Your task to perform on an android device: Go to wifi settings Image 0: 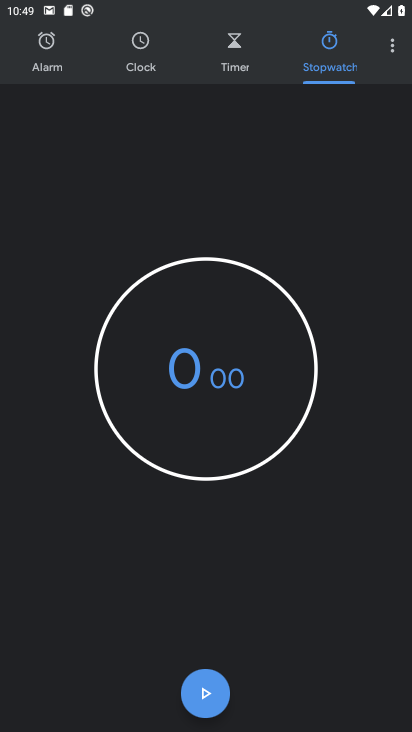
Step 0: drag from (177, 654) to (191, 306)
Your task to perform on an android device: Go to wifi settings Image 1: 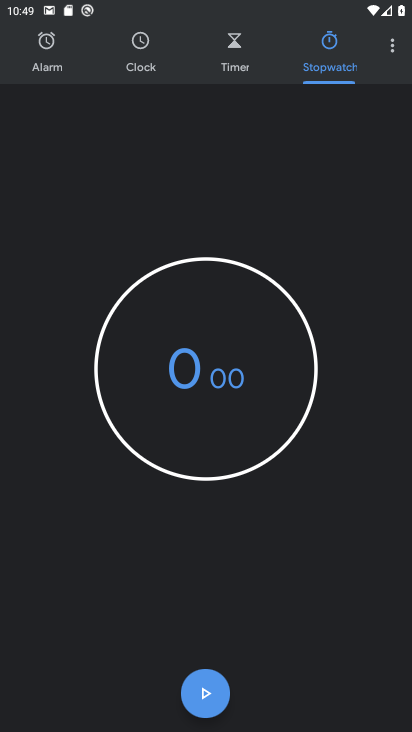
Step 1: press home button
Your task to perform on an android device: Go to wifi settings Image 2: 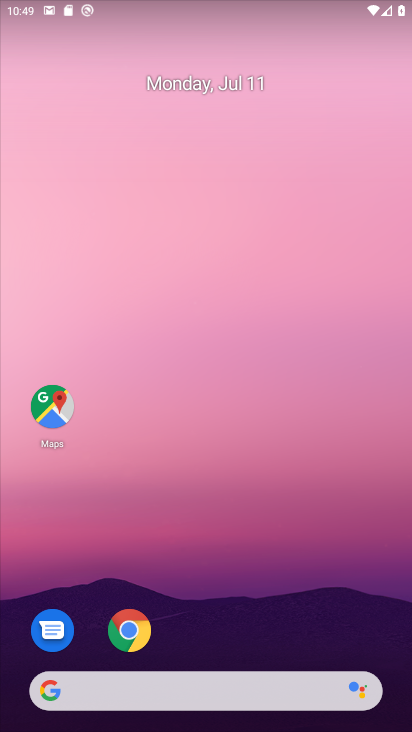
Step 2: drag from (185, 533) to (196, 7)
Your task to perform on an android device: Go to wifi settings Image 3: 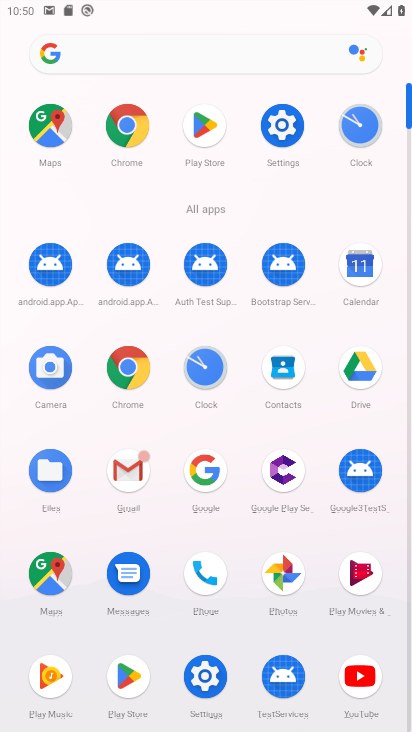
Step 3: click (284, 140)
Your task to perform on an android device: Go to wifi settings Image 4: 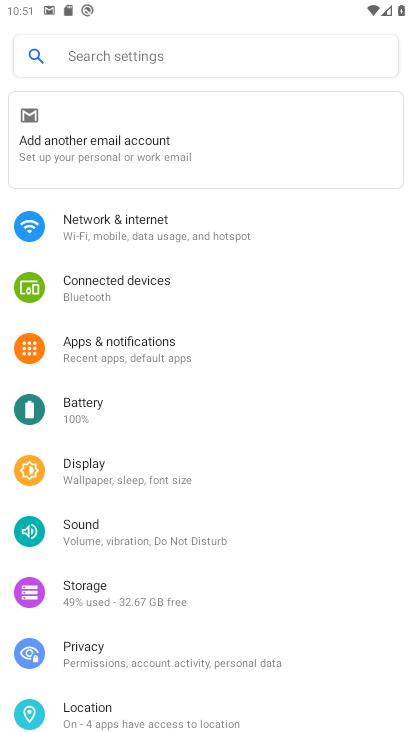
Step 4: click (158, 229)
Your task to perform on an android device: Go to wifi settings Image 5: 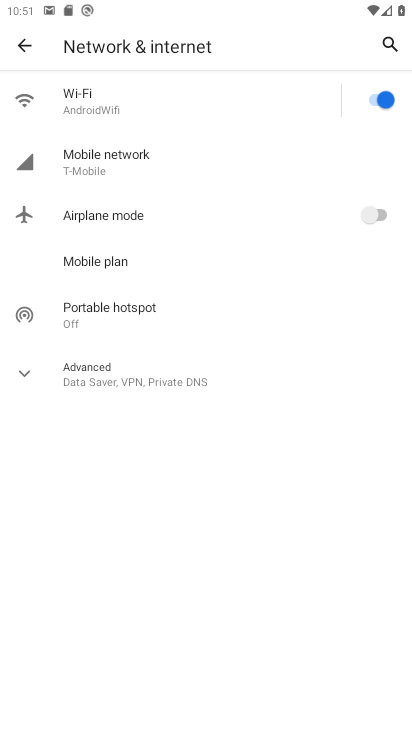
Step 5: click (244, 103)
Your task to perform on an android device: Go to wifi settings Image 6: 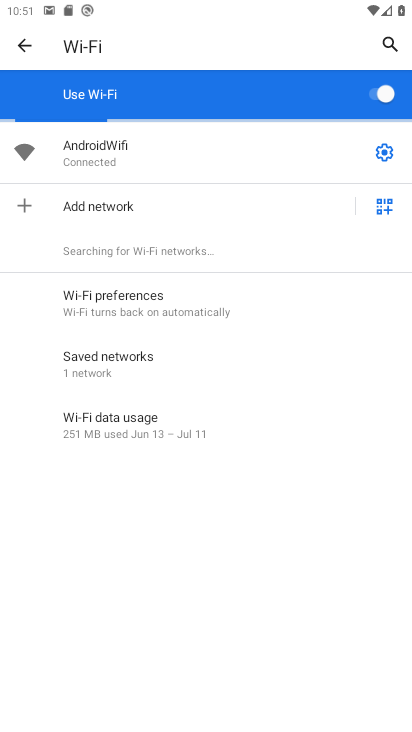
Step 6: task complete